Your task to perform on an android device: Open Youtube and go to "Your channel" Image 0: 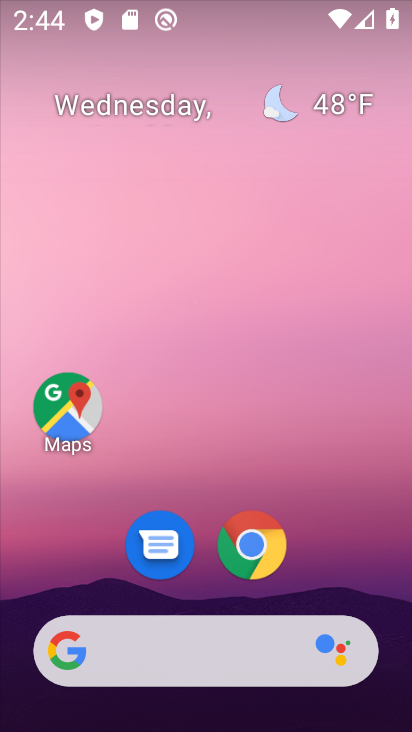
Step 0: drag from (246, 597) to (316, 171)
Your task to perform on an android device: Open Youtube and go to "Your channel" Image 1: 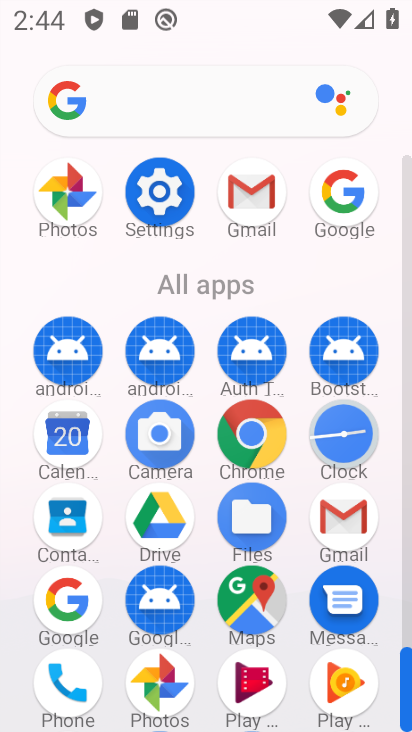
Step 1: drag from (276, 355) to (321, 138)
Your task to perform on an android device: Open Youtube and go to "Your channel" Image 2: 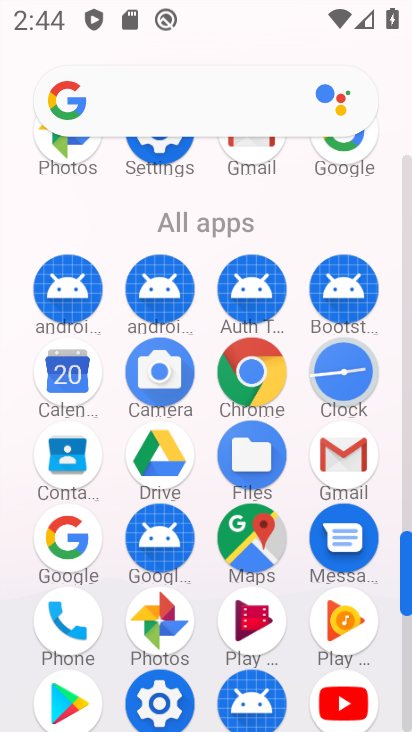
Step 2: click (352, 687)
Your task to perform on an android device: Open Youtube and go to "Your channel" Image 3: 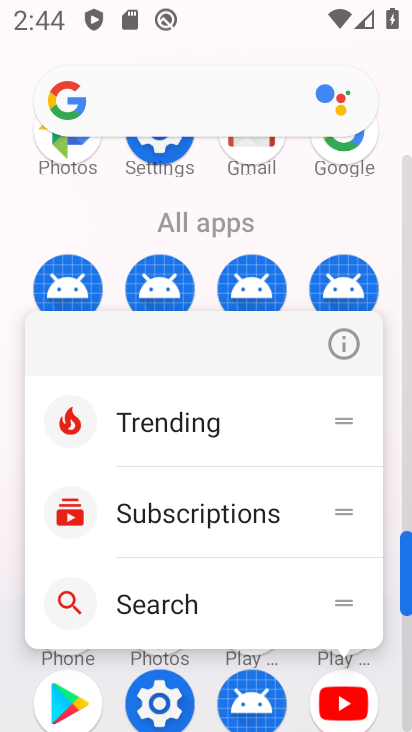
Step 3: click (352, 687)
Your task to perform on an android device: Open Youtube and go to "Your channel" Image 4: 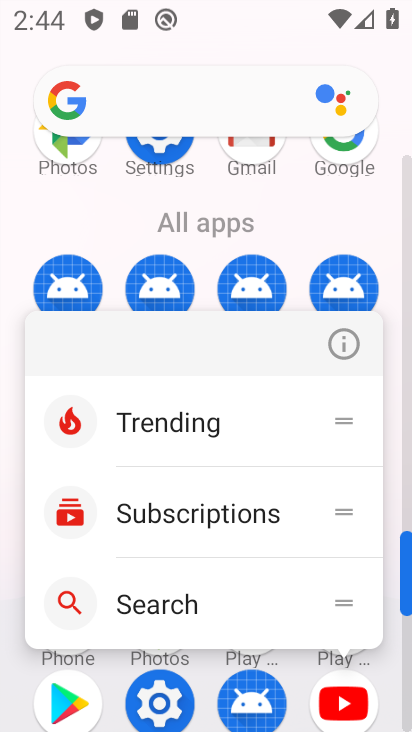
Step 4: click (352, 687)
Your task to perform on an android device: Open Youtube and go to "Your channel" Image 5: 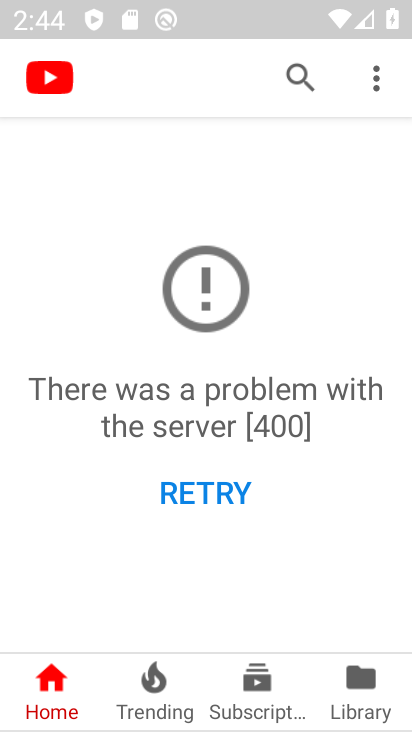
Step 5: task complete